Your task to perform on an android device: check battery use Image 0: 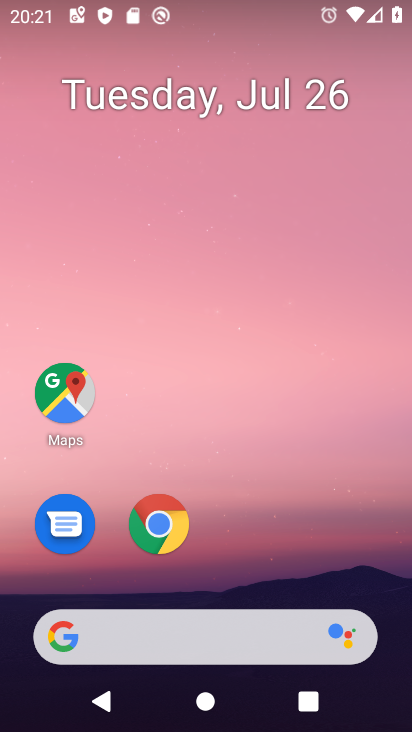
Step 0: drag from (287, 567) to (249, 47)
Your task to perform on an android device: check battery use Image 1: 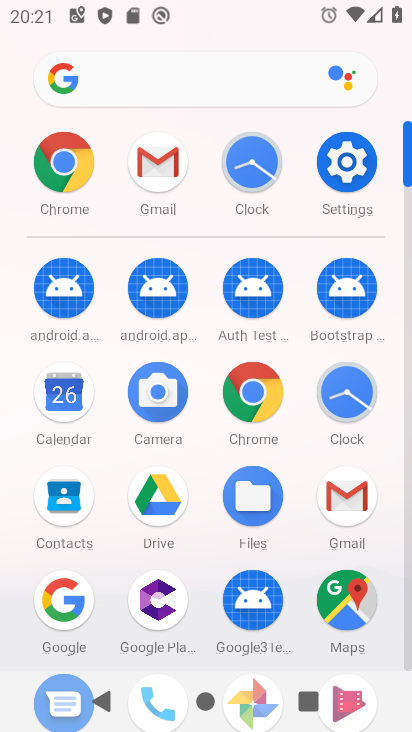
Step 1: click (347, 159)
Your task to perform on an android device: check battery use Image 2: 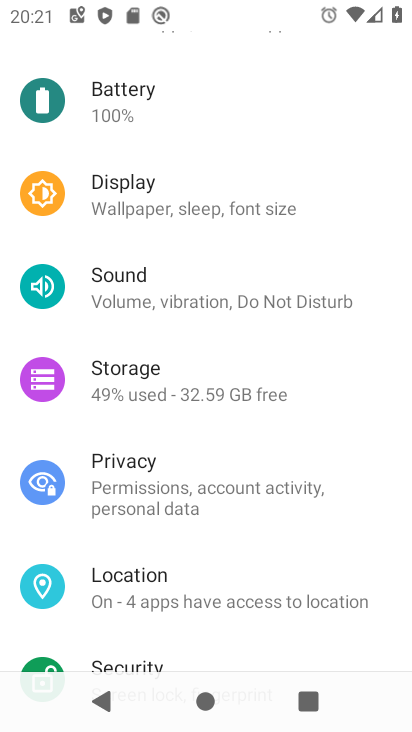
Step 2: click (137, 101)
Your task to perform on an android device: check battery use Image 3: 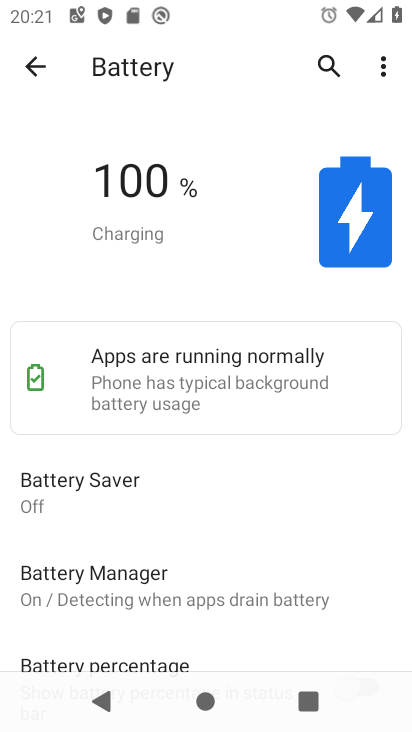
Step 3: click (385, 61)
Your task to perform on an android device: check battery use Image 4: 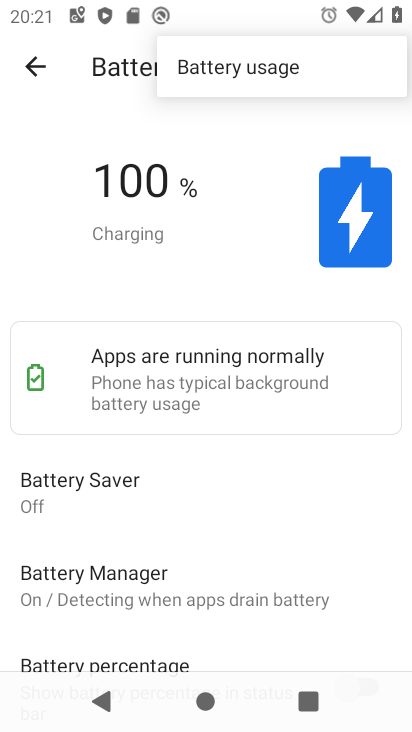
Step 4: click (271, 61)
Your task to perform on an android device: check battery use Image 5: 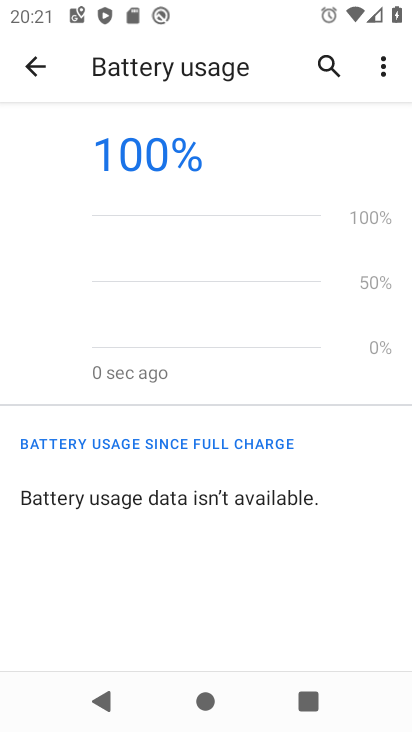
Step 5: task complete